Your task to perform on an android device: Open internet settings Image 0: 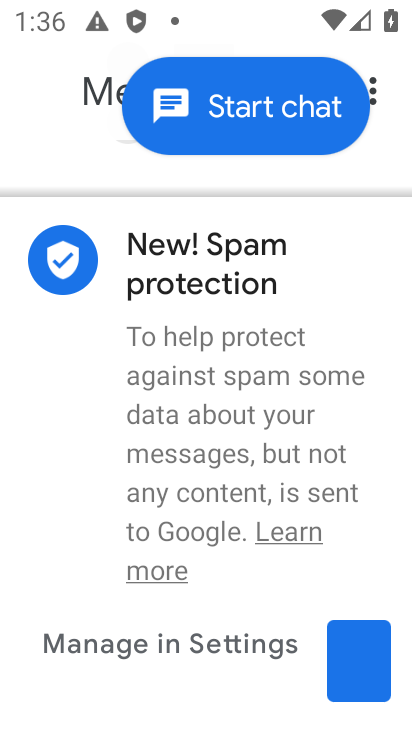
Step 0: press home button
Your task to perform on an android device: Open internet settings Image 1: 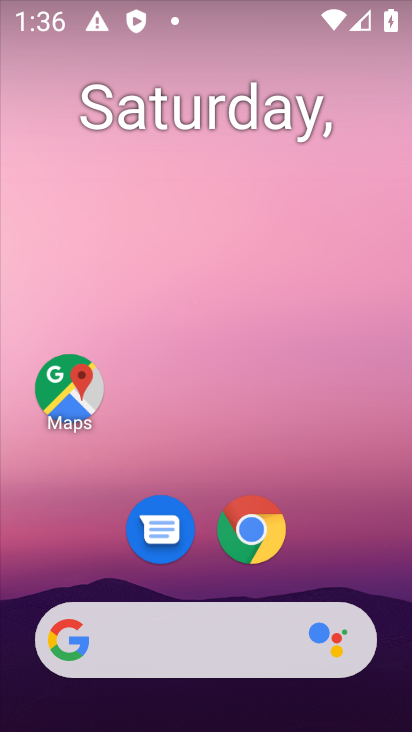
Step 1: drag from (362, 564) to (241, 91)
Your task to perform on an android device: Open internet settings Image 2: 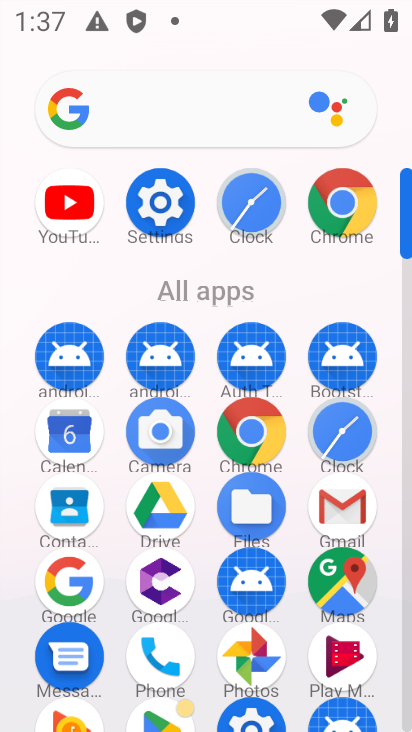
Step 2: click (159, 199)
Your task to perform on an android device: Open internet settings Image 3: 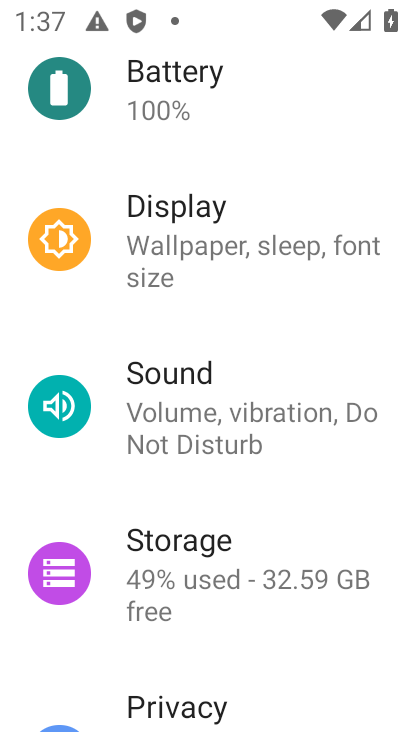
Step 3: drag from (219, 165) to (366, 713)
Your task to perform on an android device: Open internet settings Image 4: 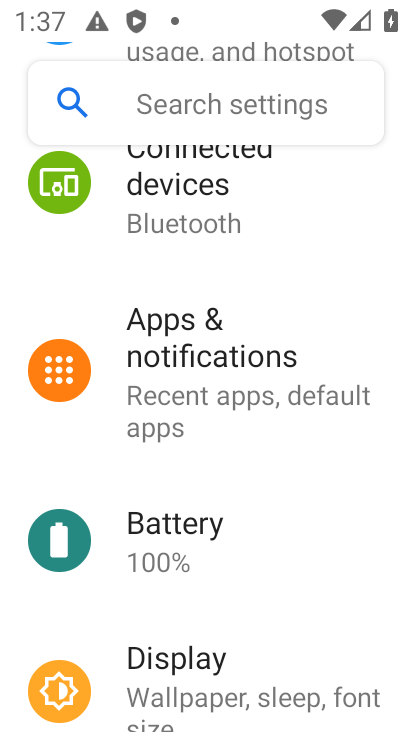
Step 4: drag from (219, 256) to (280, 652)
Your task to perform on an android device: Open internet settings Image 5: 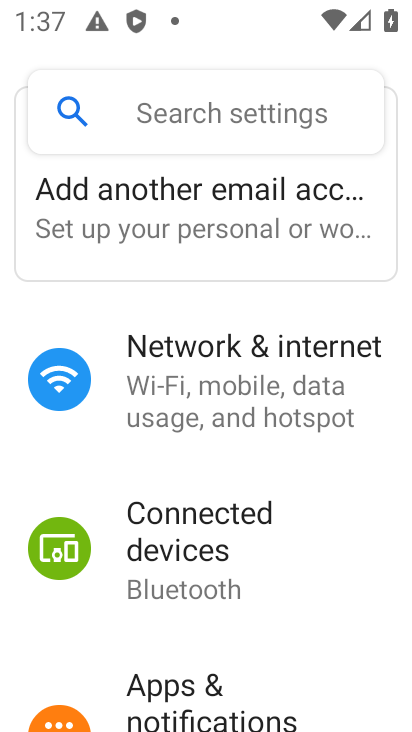
Step 5: click (257, 410)
Your task to perform on an android device: Open internet settings Image 6: 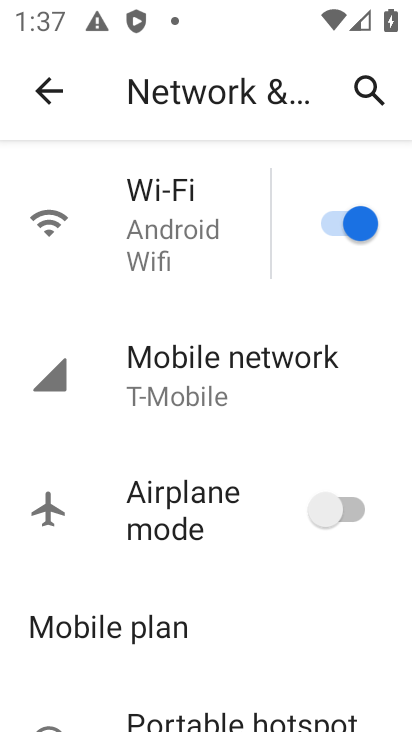
Step 6: task complete